Your task to perform on an android device: read, delete, or share a saved page in the chrome app Image 0: 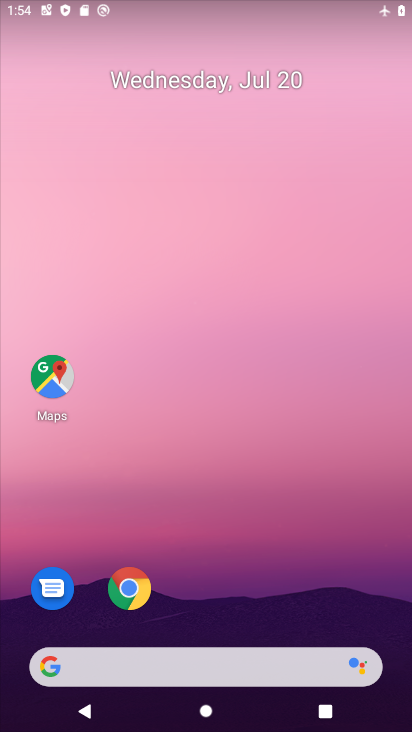
Step 0: drag from (338, 613) to (201, 128)
Your task to perform on an android device: read, delete, or share a saved page in the chrome app Image 1: 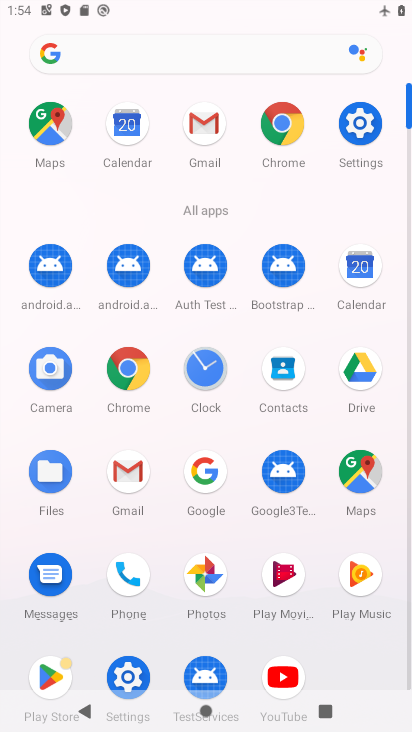
Step 1: click (287, 137)
Your task to perform on an android device: read, delete, or share a saved page in the chrome app Image 2: 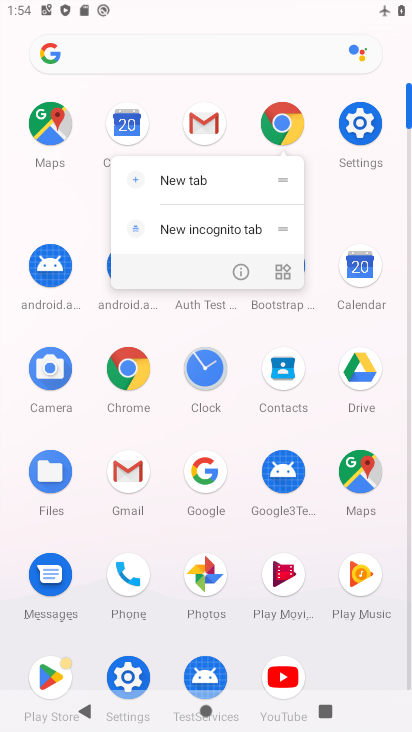
Step 2: click (287, 137)
Your task to perform on an android device: read, delete, or share a saved page in the chrome app Image 3: 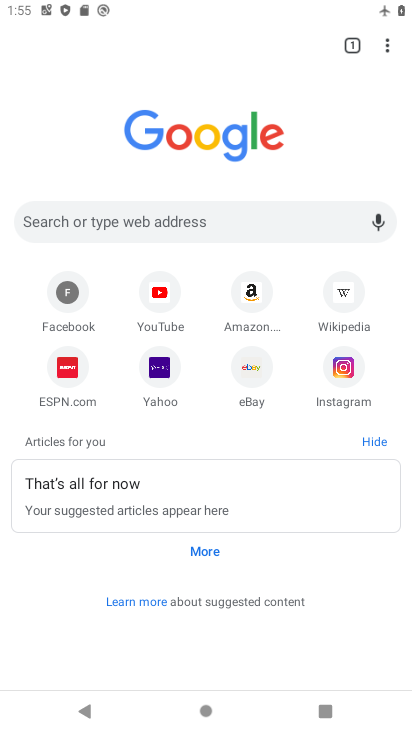
Step 3: task complete